Your task to perform on an android device: choose inbox layout in the gmail app Image 0: 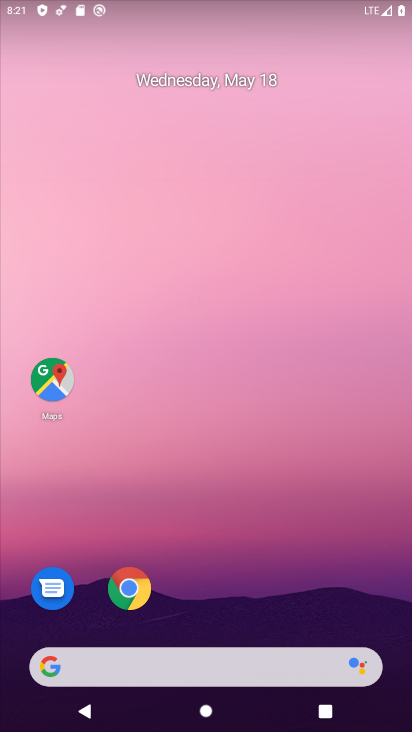
Step 0: drag from (333, 644) to (299, 0)
Your task to perform on an android device: choose inbox layout in the gmail app Image 1: 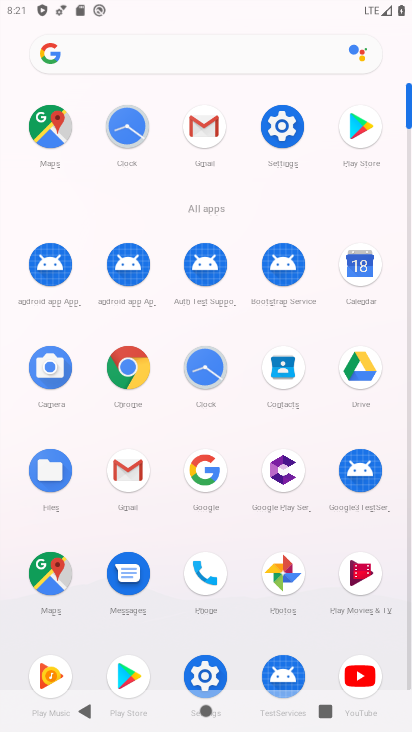
Step 1: click (205, 139)
Your task to perform on an android device: choose inbox layout in the gmail app Image 2: 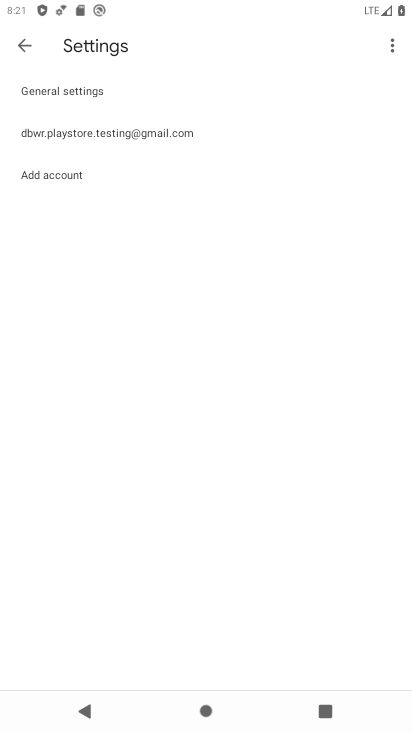
Step 2: click (77, 133)
Your task to perform on an android device: choose inbox layout in the gmail app Image 3: 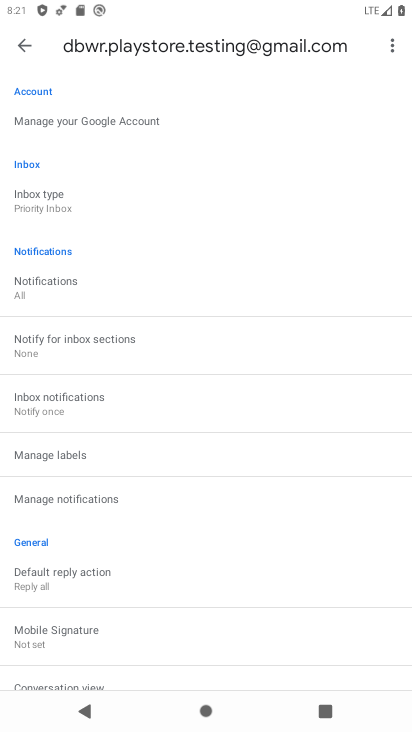
Step 3: click (41, 207)
Your task to perform on an android device: choose inbox layout in the gmail app Image 4: 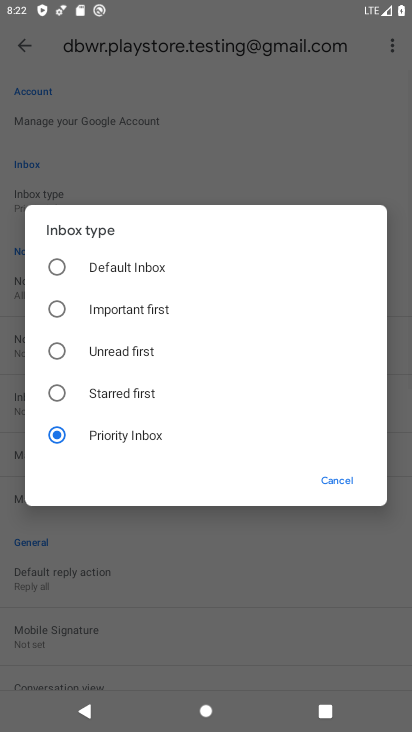
Step 4: click (53, 359)
Your task to perform on an android device: choose inbox layout in the gmail app Image 5: 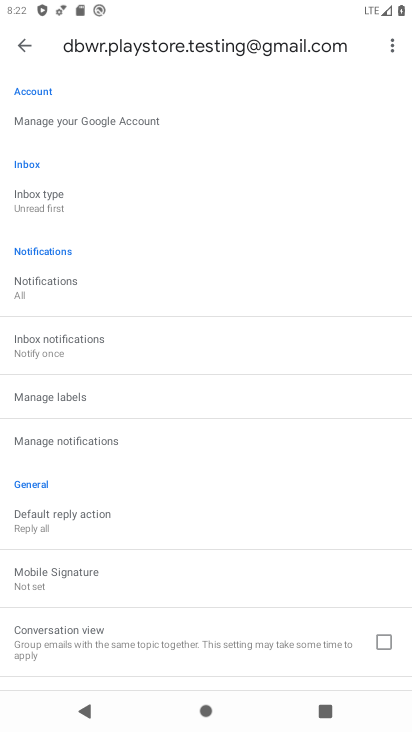
Step 5: task complete